Your task to perform on an android device: refresh tabs in the chrome app Image 0: 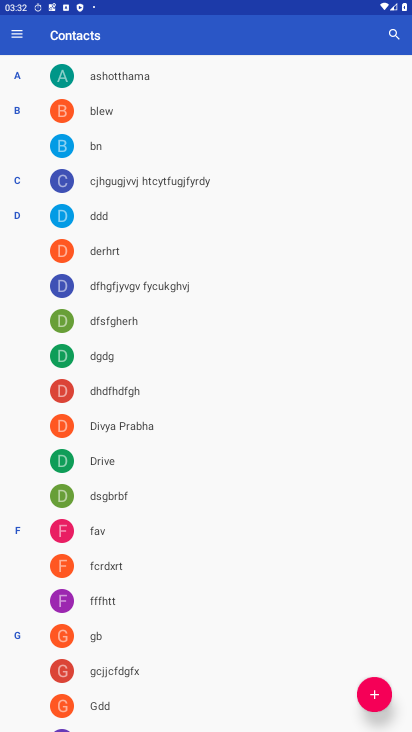
Step 0: press home button
Your task to perform on an android device: refresh tabs in the chrome app Image 1: 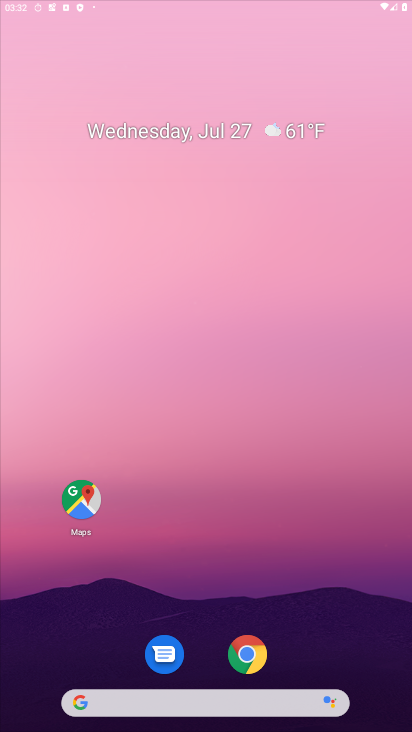
Step 1: drag from (174, 637) to (236, 23)
Your task to perform on an android device: refresh tabs in the chrome app Image 2: 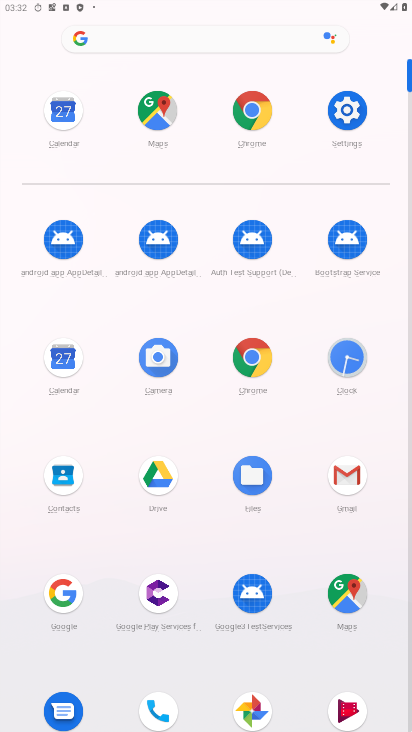
Step 2: click (258, 355)
Your task to perform on an android device: refresh tabs in the chrome app Image 3: 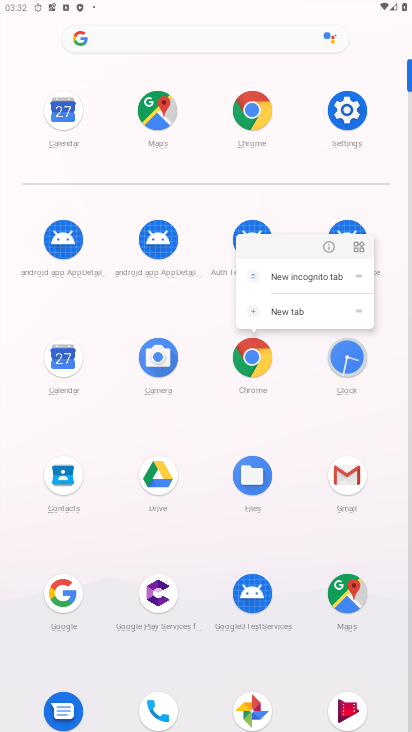
Step 3: click (258, 355)
Your task to perform on an android device: refresh tabs in the chrome app Image 4: 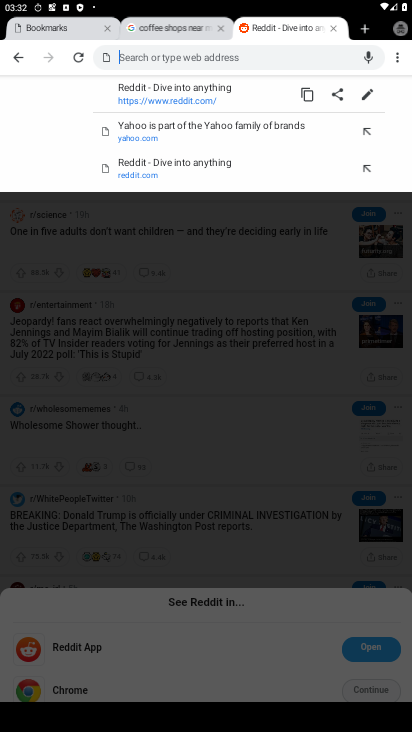
Step 4: click (77, 54)
Your task to perform on an android device: refresh tabs in the chrome app Image 5: 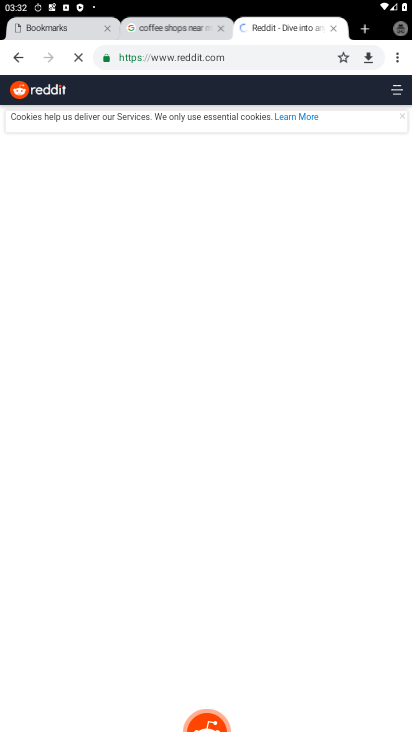
Step 5: task complete